Your task to perform on an android device: Open location settings Image 0: 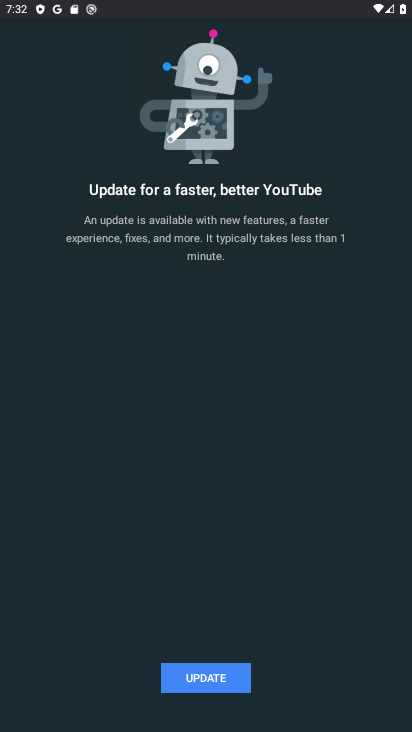
Step 0: press home button
Your task to perform on an android device: Open location settings Image 1: 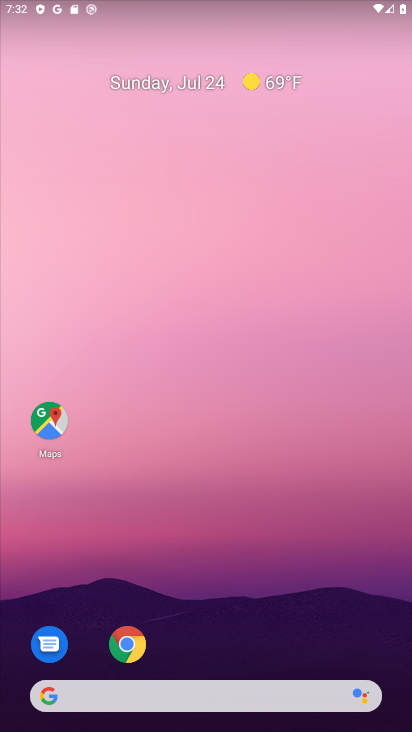
Step 1: drag from (226, 672) to (218, 155)
Your task to perform on an android device: Open location settings Image 2: 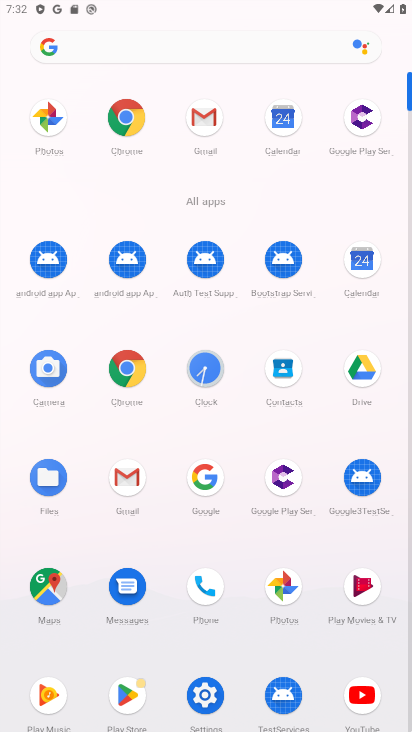
Step 2: click (204, 687)
Your task to perform on an android device: Open location settings Image 3: 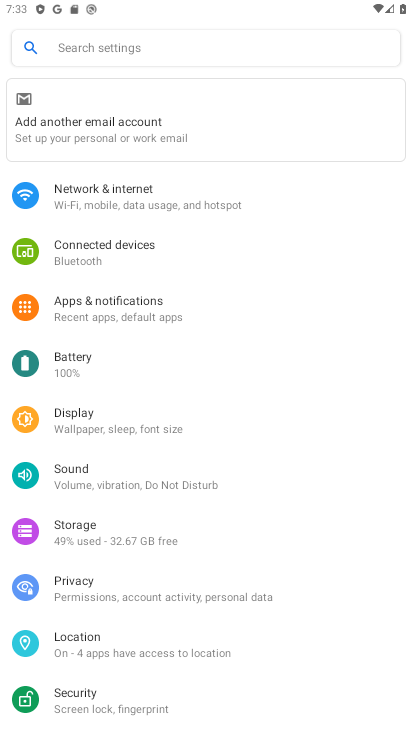
Step 3: click (114, 651)
Your task to perform on an android device: Open location settings Image 4: 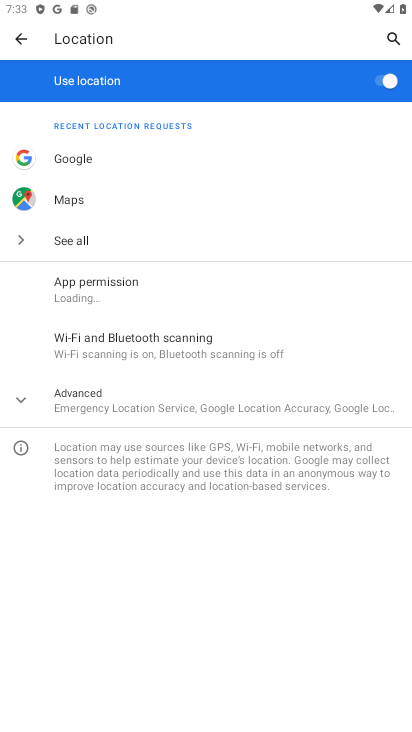
Step 4: click (64, 408)
Your task to perform on an android device: Open location settings Image 5: 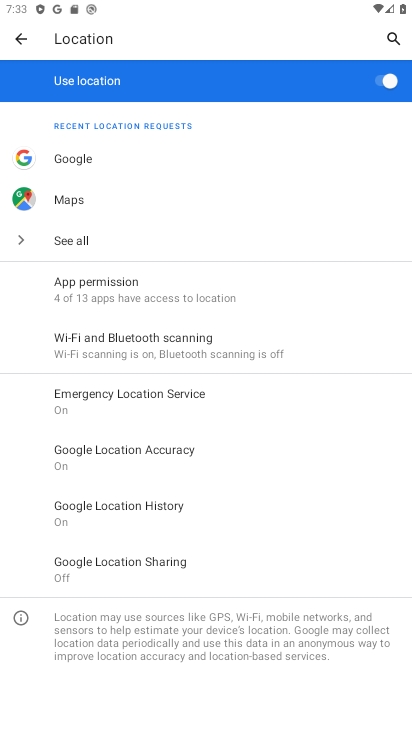
Step 5: task complete